Your task to perform on an android device: allow notifications from all sites in the chrome app Image 0: 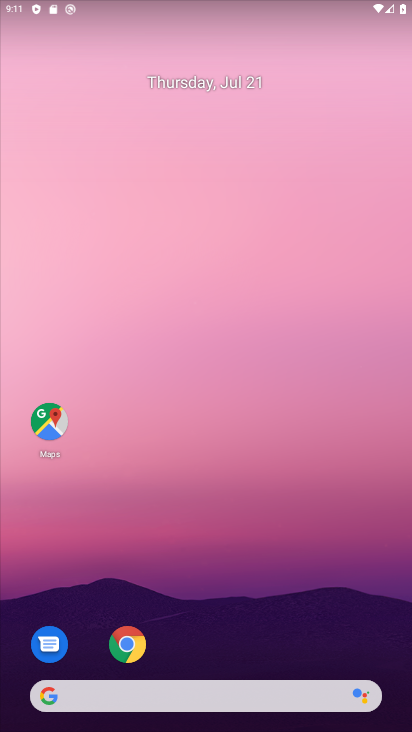
Step 0: drag from (191, 646) to (237, 130)
Your task to perform on an android device: allow notifications from all sites in the chrome app Image 1: 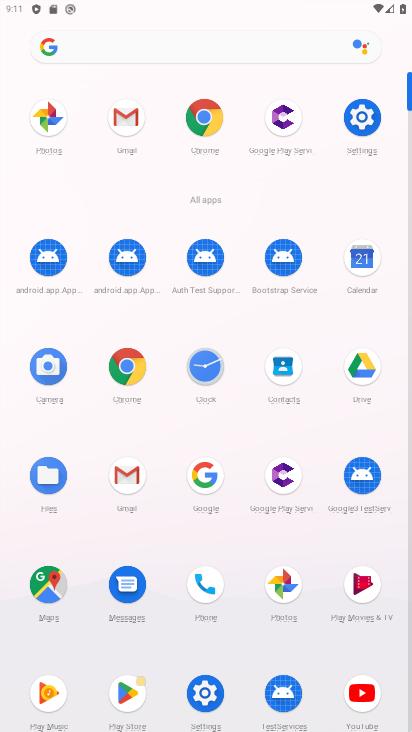
Step 1: click (205, 117)
Your task to perform on an android device: allow notifications from all sites in the chrome app Image 2: 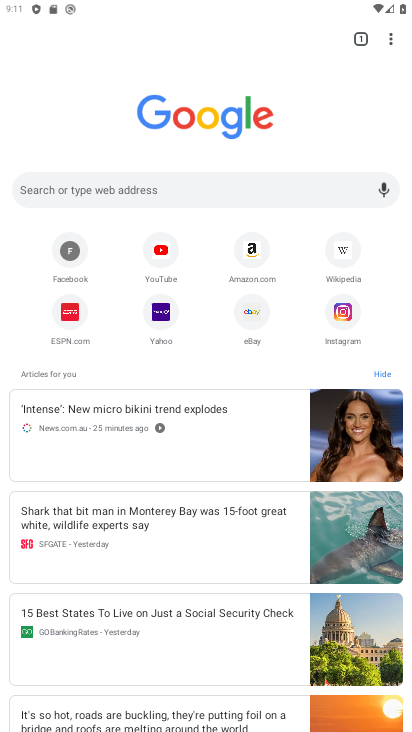
Step 2: click (384, 43)
Your task to perform on an android device: allow notifications from all sites in the chrome app Image 3: 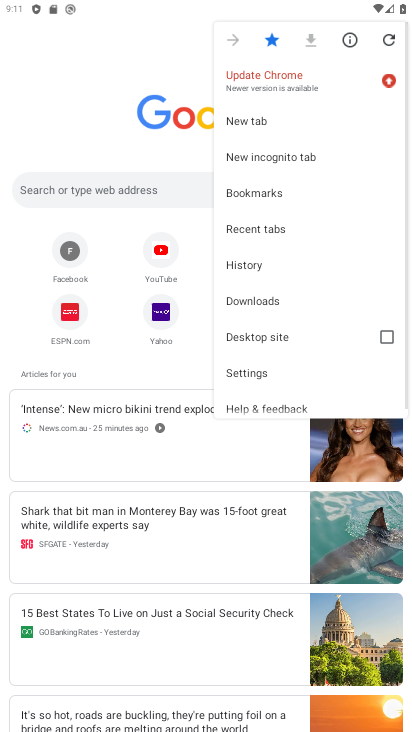
Step 3: click (234, 363)
Your task to perform on an android device: allow notifications from all sites in the chrome app Image 4: 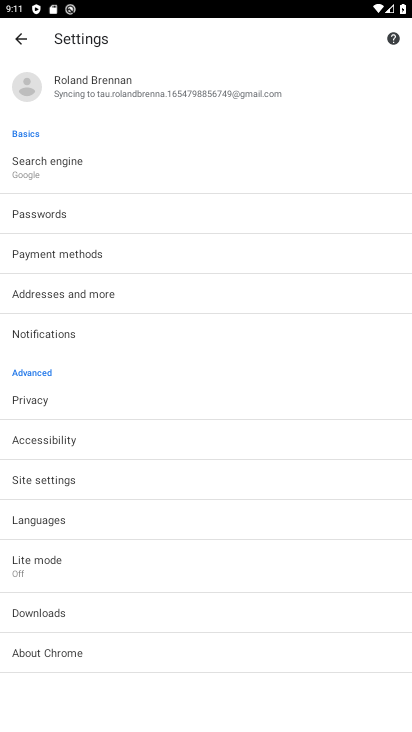
Step 4: click (63, 484)
Your task to perform on an android device: allow notifications from all sites in the chrome app Image 5: 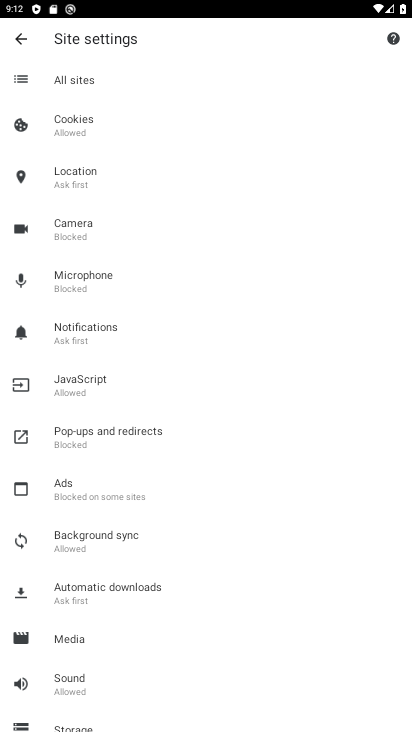
Step 5: click (95, 327)
Your task to perform on an android device: allow notifications from all sites in the chrome app Image 6: 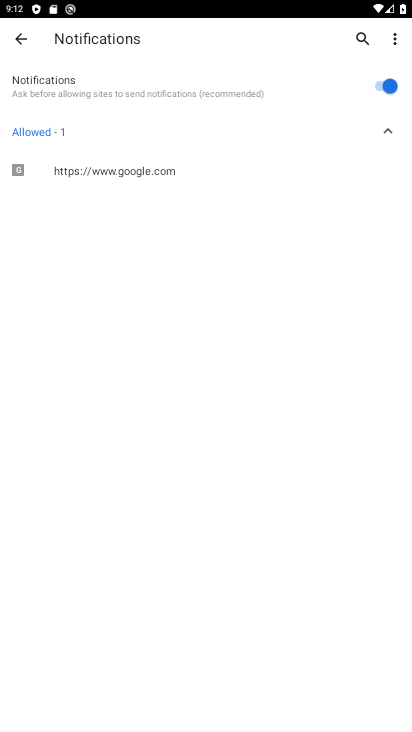
Step 6: task complete